Your task to perform on an android device: Go to Wikipedia Image 0: 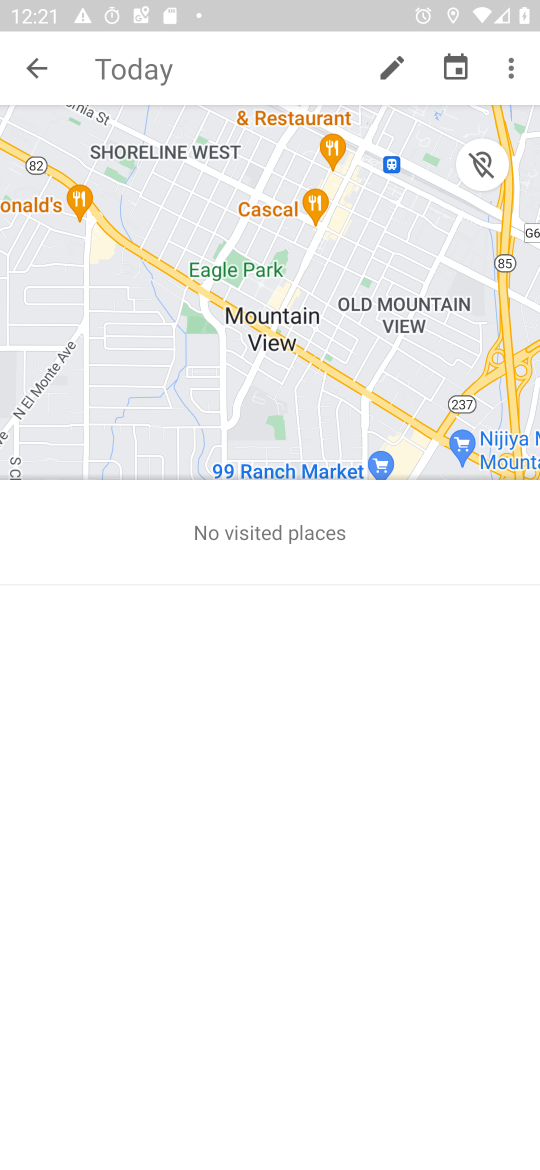
Step 0: press home button
Your task to perform on an android device: Go to Wikipedia Image 1: 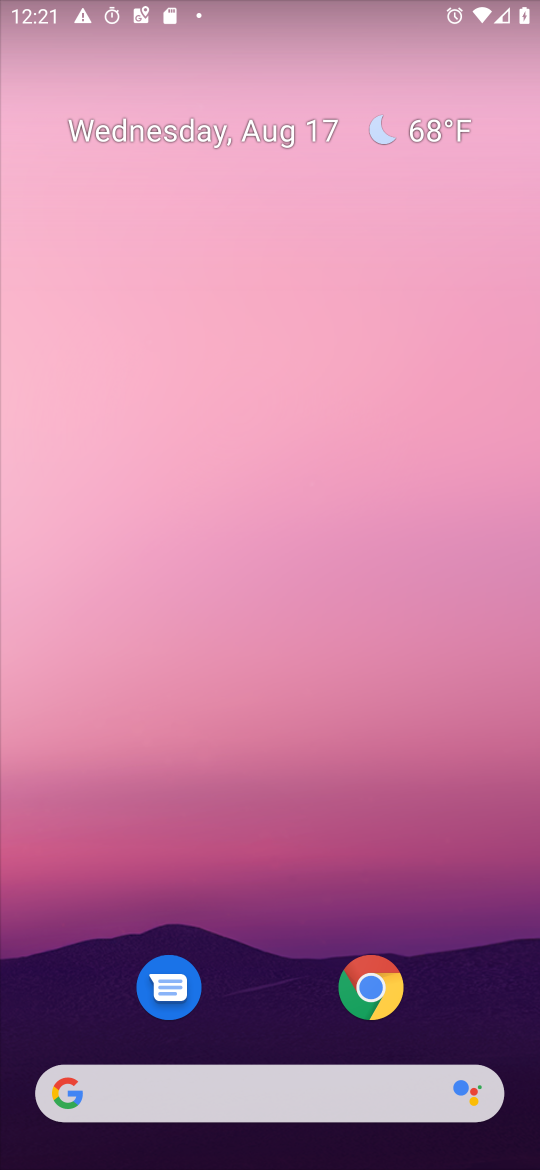
Step 1: click (127, 1093)
Your task to perform on an android device: Go to Wikipedia Image 2: 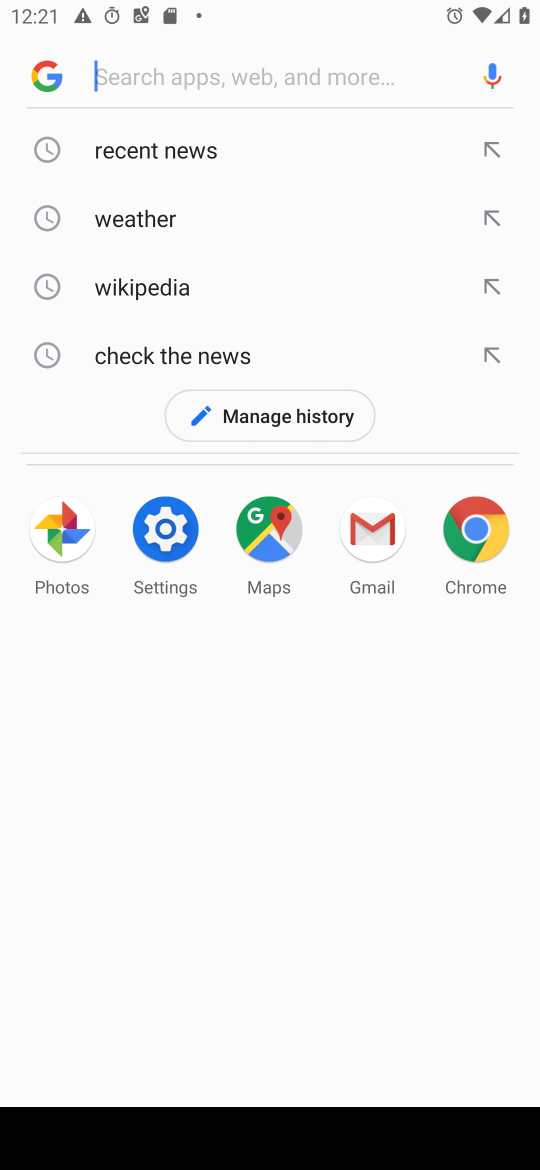
Step 2: click (155, 291)
Your task to perform on an android device: Go to Wikipedia Image 3: 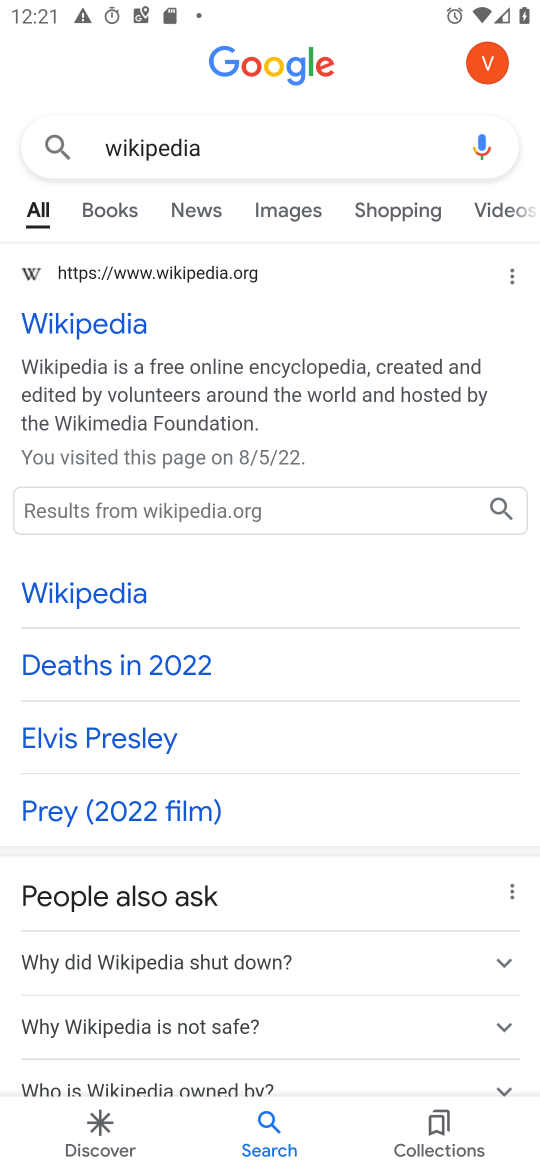
Step 3: task complete